Your task to perform on an android device: Check the settings for the Amazon Music app Image 0: 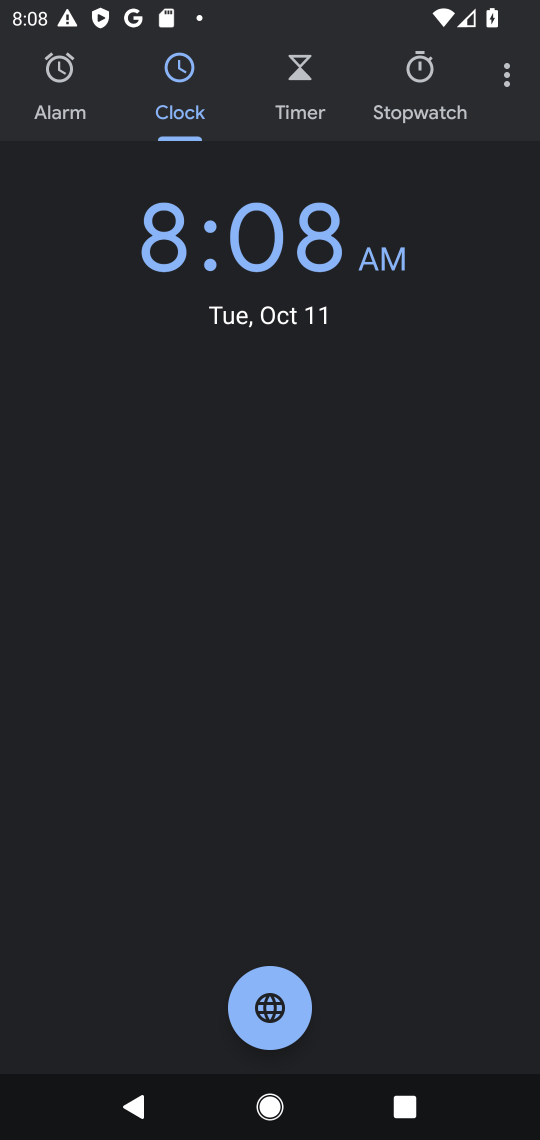
Step 0: press home button
Your task to perform on an android device: Check the settings for the Amazon Music app Image 1: 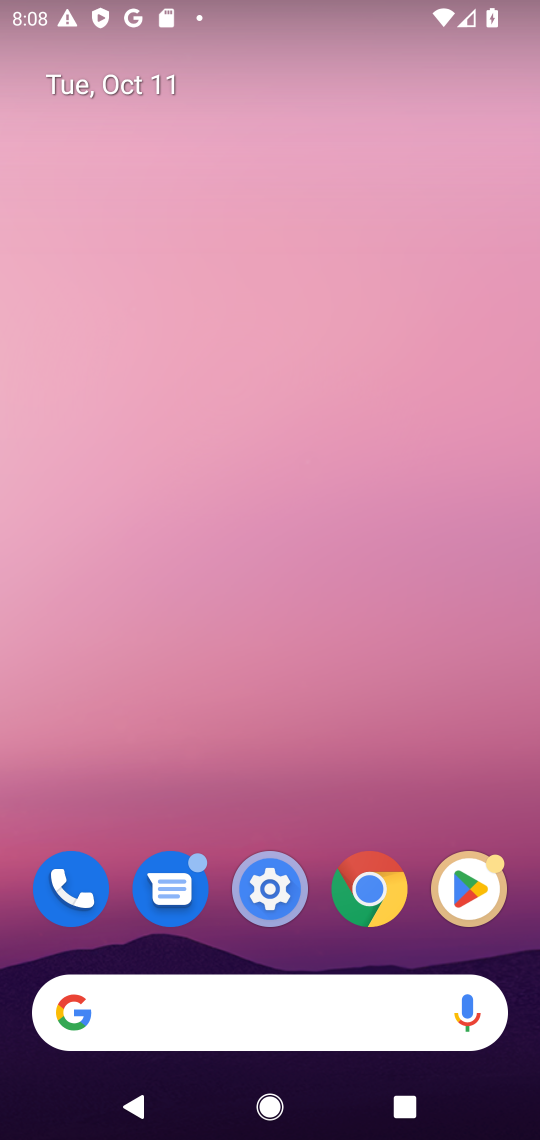
Step 1: task complete